Your task to perform on an android device: What's on my calendar today? Image 0: 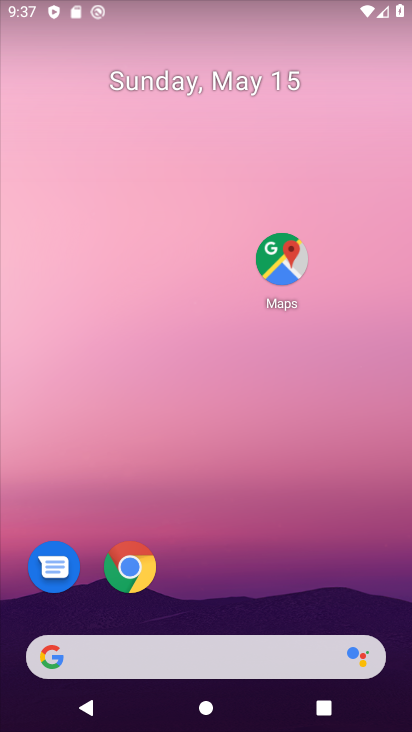
Step 0: drag from (214, 574) to (190, 96)
Your task to perform on an android device: What's on my calendar today? Image 1: 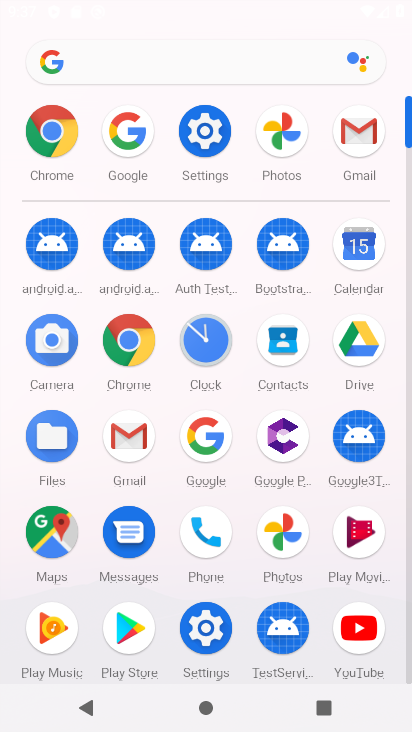
Step 1: click (356, 244)
Your task to perform on an android device: What's on my calendar today? Image 2: 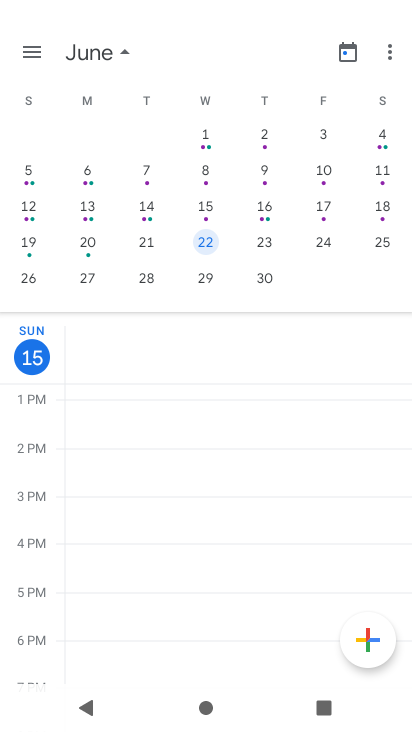
Step 2: drag from (96, 281) to (404, 257)
Your task to perform on an android device: What's on my calendar today? Image 3: 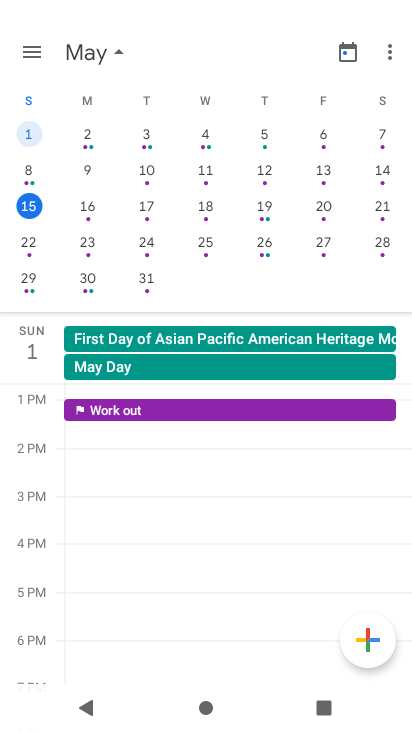
Step 3: click (25, 207)
Your task to perform on an android device: What's on my calendar today? Image 4: 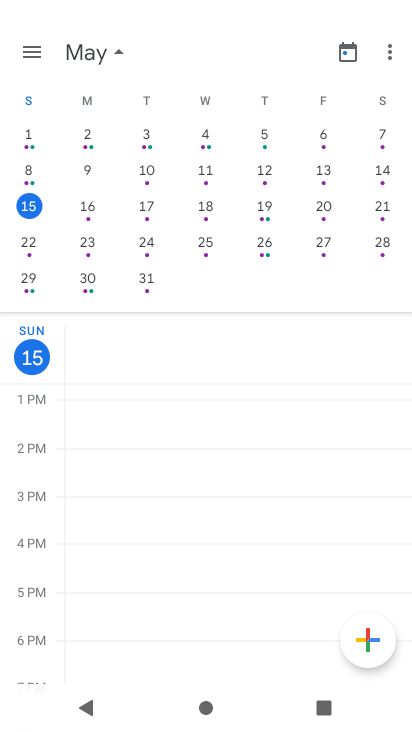
Step 4: task complete